Your task to perform on an android device: turn on data saver in the chrome app Image 0: 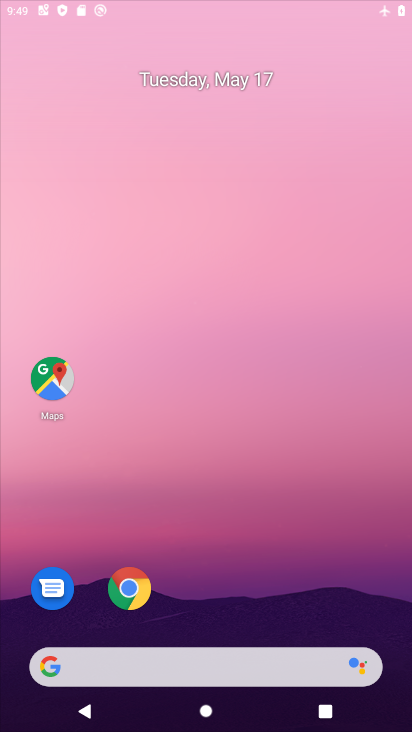
Step 0: drag from (195, 643) to (209, 78)
Your task to perform on an android device: turn on data saver in the chrome app Image 1: 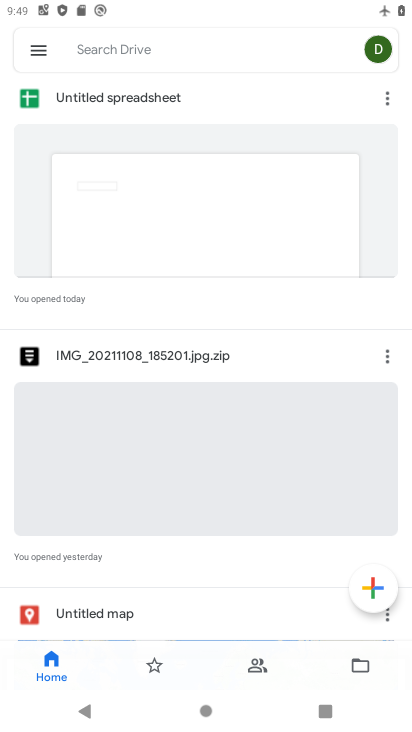
Step 1: press home button
Your task to perform on an android device: turn on data saver in the chrome app Image 2: 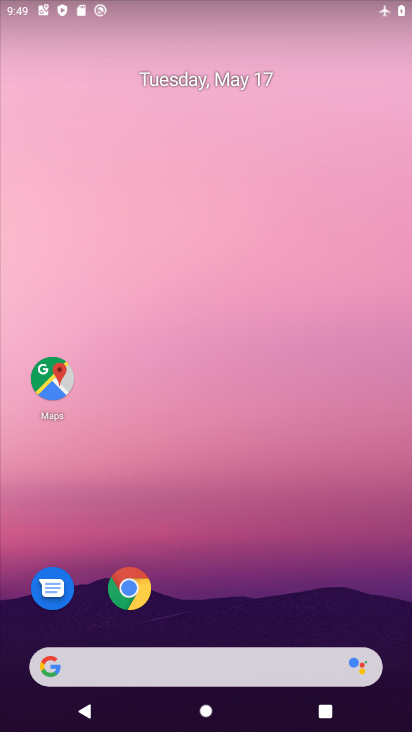
Step 2: click (124, 605)
Your task to perform on an android device: turn on data saver in the chrome app Image 3: 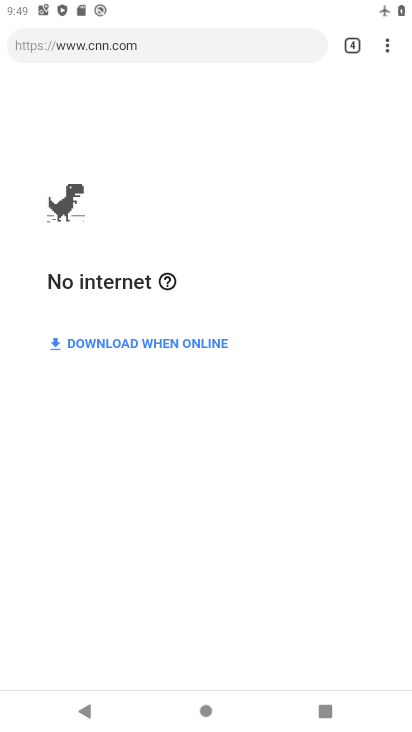
Step 3: click (393, 39)
Your task to perform on an android device: turn on data saver in the chrome app Image 4: 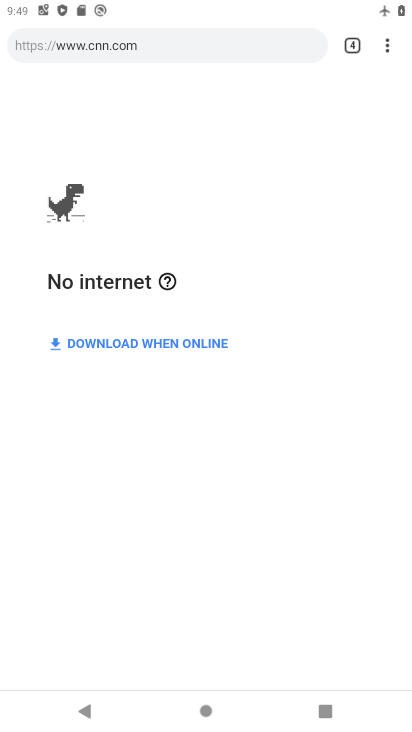
Step 4: drag from (380, 46) to (244, 509)
Your task to perform on an android device: turn on data saver in the chrome app Image 5: 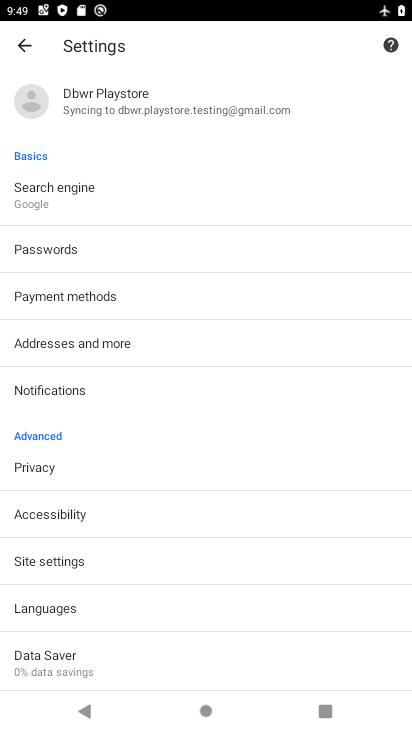
Step 5: click (72, 646)
Your task to perform on an android device: turn on data saver in the chrome app Image 6: 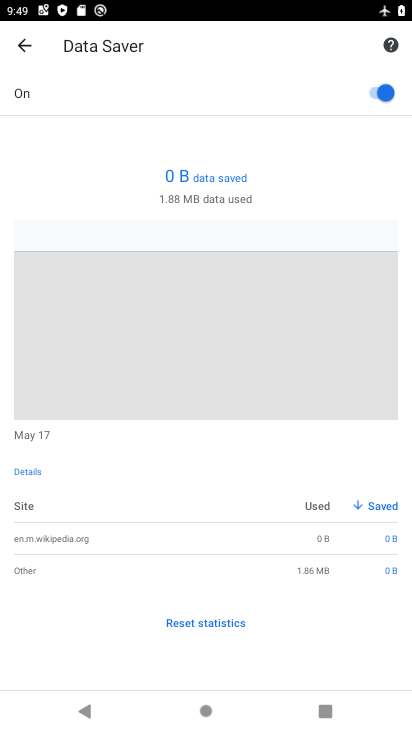
Step 6: task complete